Your task to perform on an android device: Open display settings Image 0: 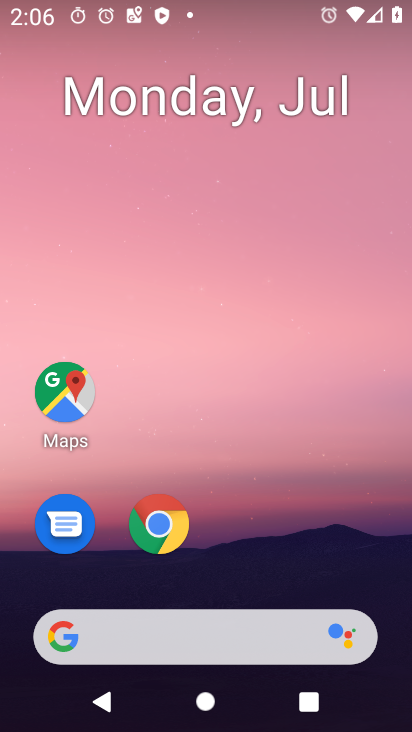
Step 0: press home button
Your task to perform on an android device: Open display settings Image 1: 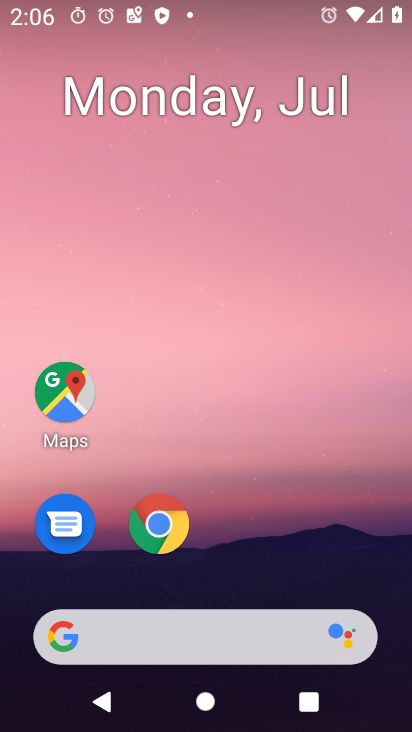
Step 1: drag from (265, 581) to (174, 133)
Your task to perform on an android device: Open display settings Image 2: 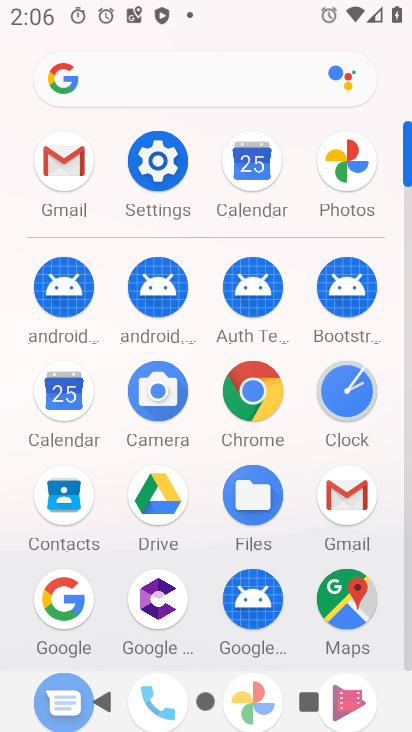
Step 2: click (153, 182)
Your task to perform on an android device: Open display settings Image 3: 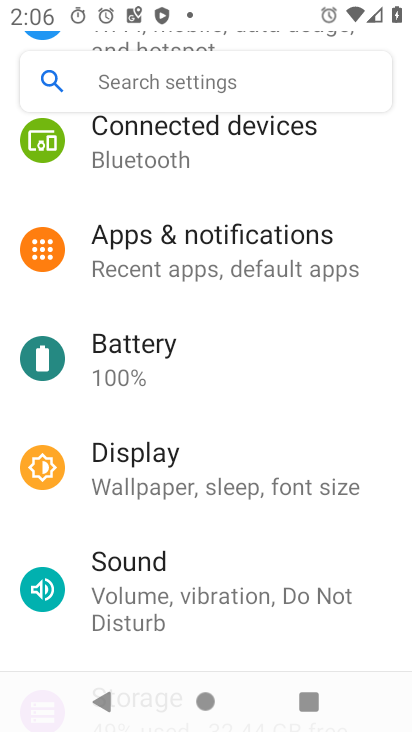
Step 3: click (156, 466)
Your task to perform on an android device: Open display settings Image 4: 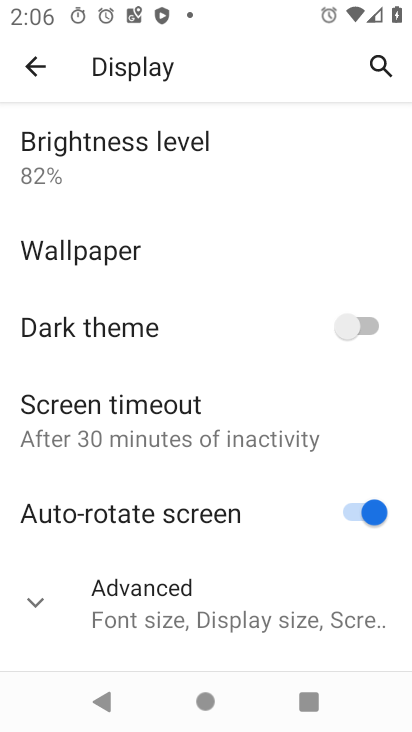
Step 4: task complete